Your task to perform on an android device: Open location settings Image 0: 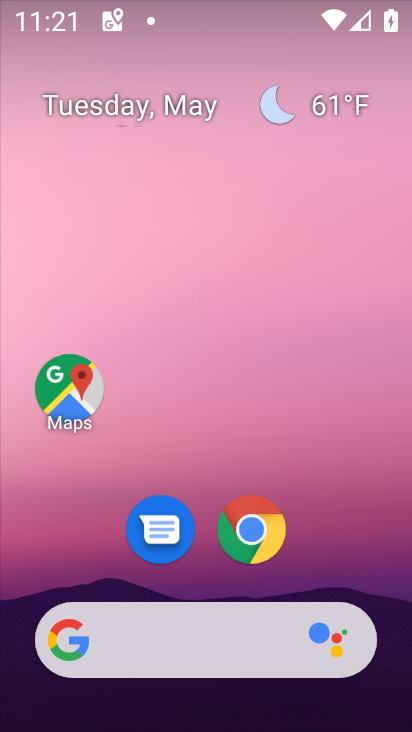
Step 0: drag from (312, 539) to (117, 183)
Your task to perform on an android device: Open location settings Image 1: 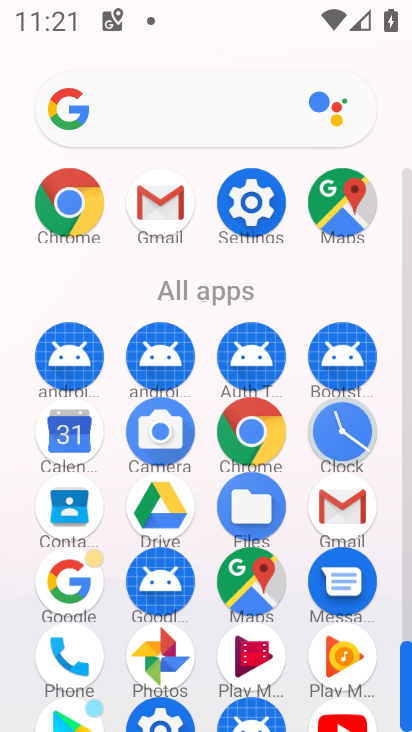
Step 1: click (262, 227)
Your task to perform on an android device: Open location settings Image 2: 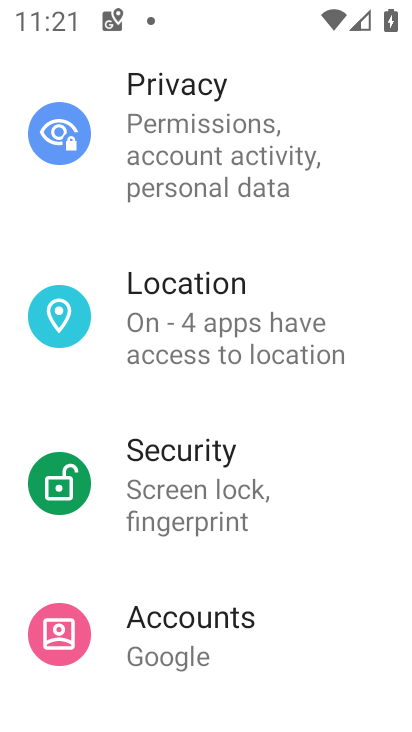
Step 2: click (244, 327)
Your task to perform on an android device: Open location settings Image 3: 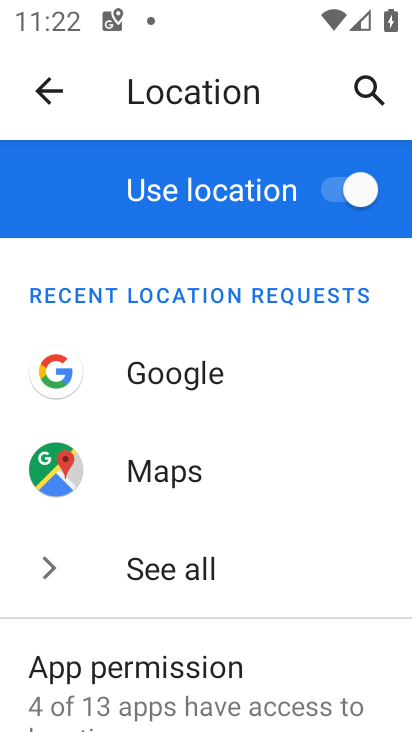
Step 3: task complete